Your task to perform on an android device: turn off improve location accuracy Image 0: 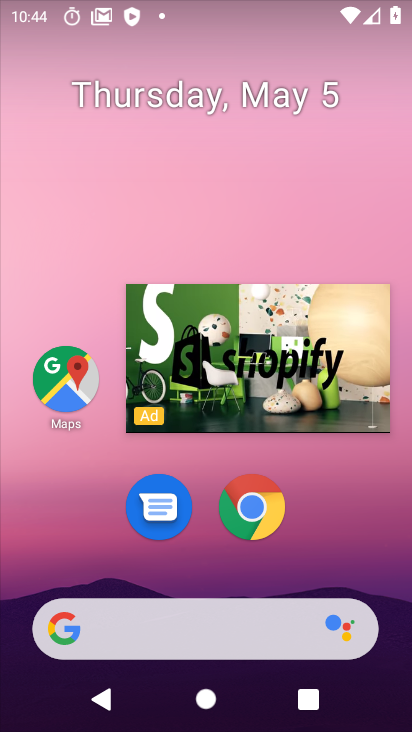
Step 0: click (358, 320)
Your task to perform on an android device: turn off improve location accuracy Image 1: 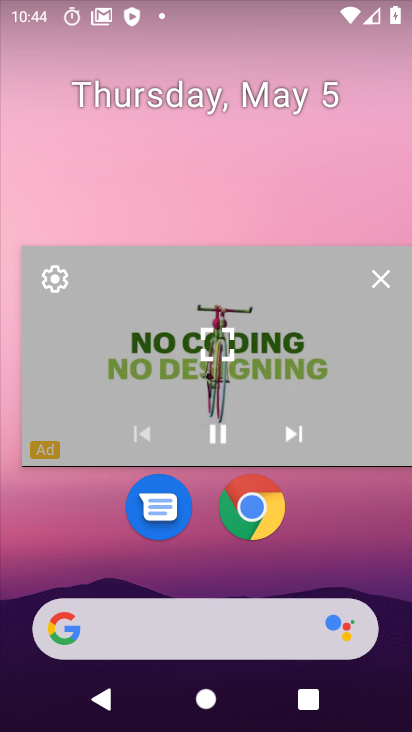
Step 1: click (390, 274)
Your task to perform on an android device: turn off improve location accuracy Image 2: 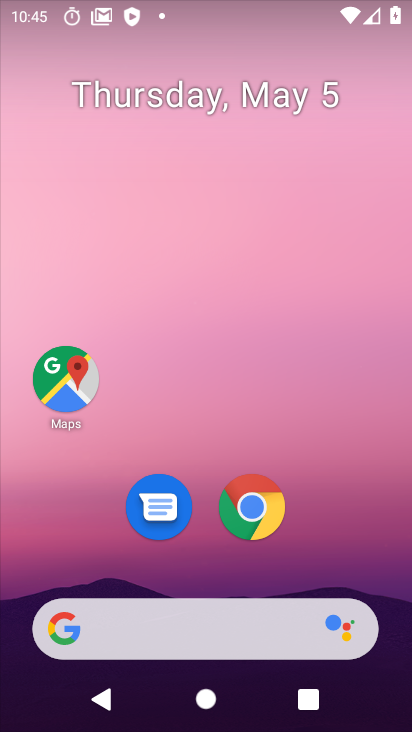
Step 2: drag from (333, 551) to (288, 11)
Your task to perform on an android device: turn off improve location accuracy Image 3: 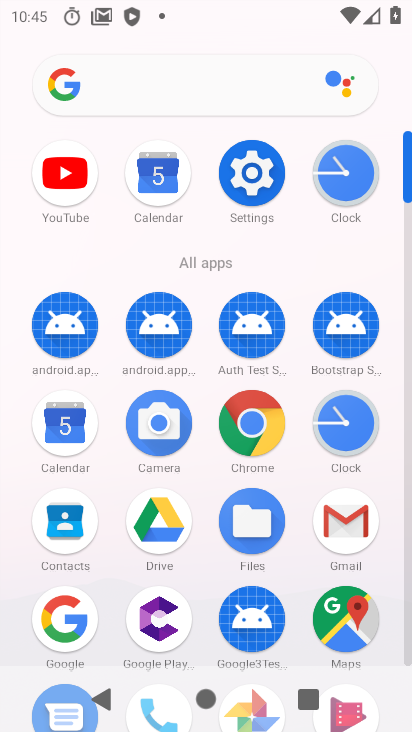
Step 3: click (252, 176)
Your task to perform on an android device: turn off improve location accuracy Image 4: 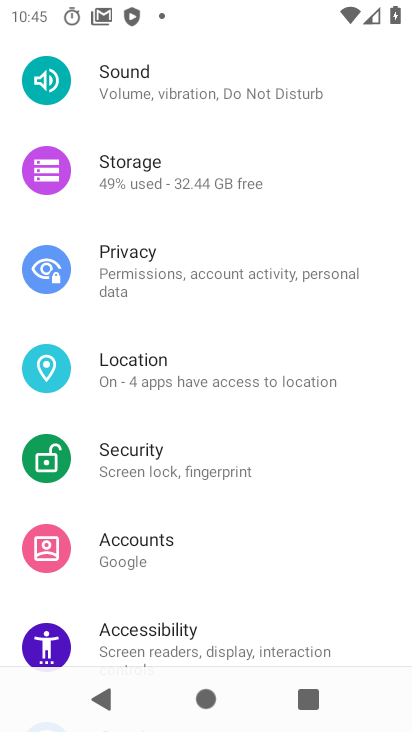
Step 4: click (166, 383)
Your task to perform on an android device: turn off improve location accuracy Image 5: 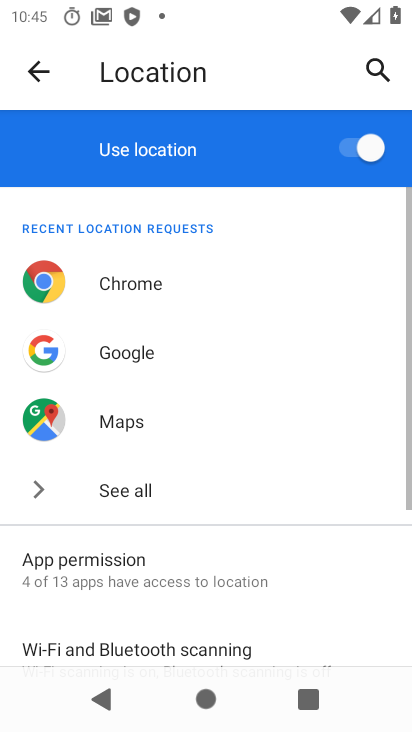
Step 5: drag from (187, 559) to (159, 232)
Your task to perform on an android device: turn off improve location accuracy Image 6: 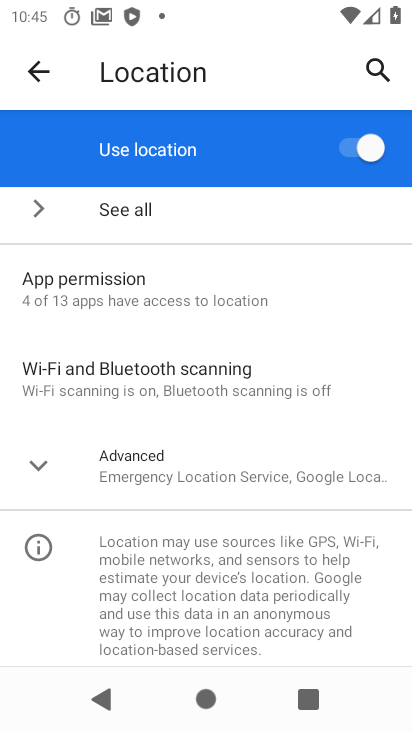
Step 6: click (48, 476)
Your task to perform on an android device: turn off improve location accuracy Image 7: 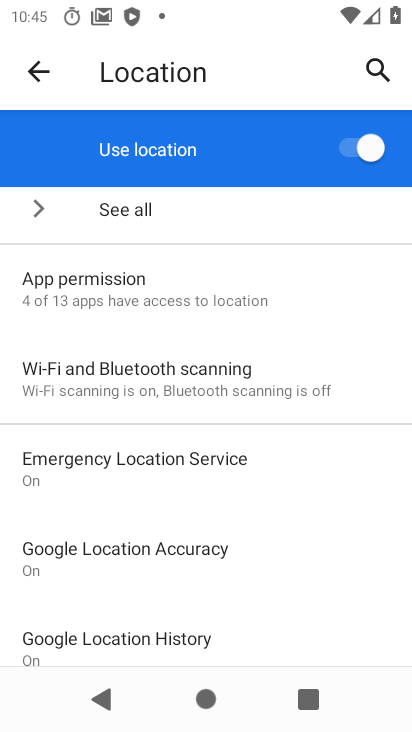
Step 7: click (79, 554)
Your task to perform on an android device: turn off improve location accuracy Image 8: 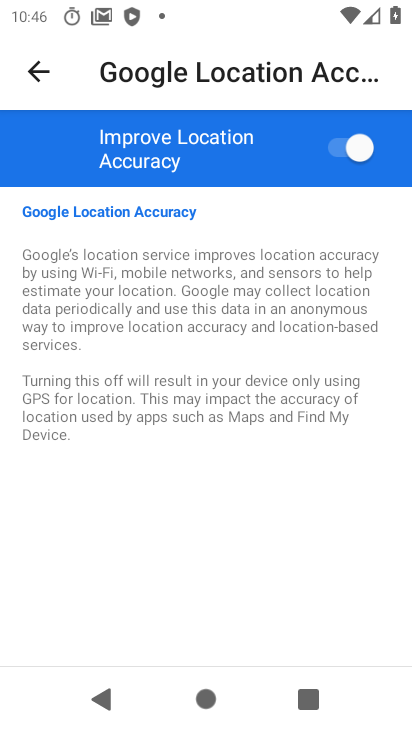
Step 8: click (363, 157)
Your task to perform on an android device: turn off improve location accuracy Image 9: 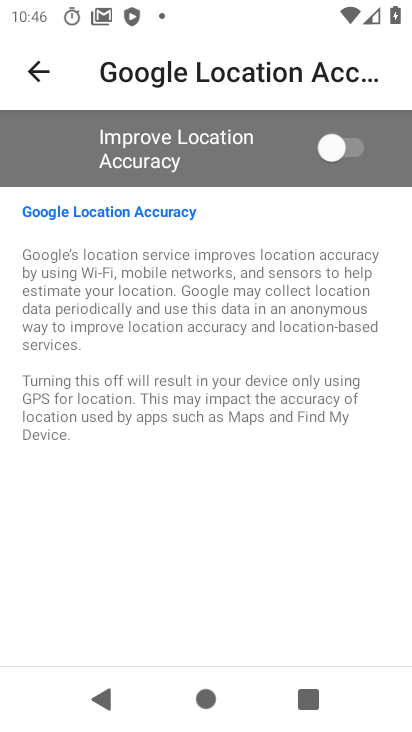
Step 9: task complete